Your task to perform on an android device: Go to notification settings Image 0: 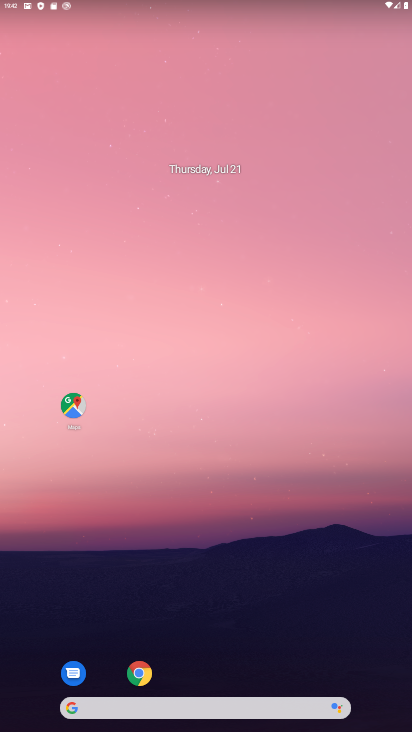
Step 0: drag from (357, 649) to (338, 222)
Your task to perform on an android device: Go to notification settings Image 1: 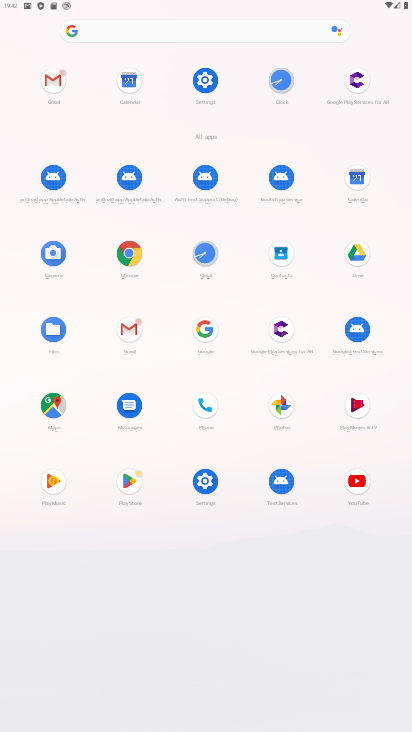
Step 1: click (217, 85)
Your task to perform on an android device: Go to notification settings Image 2: 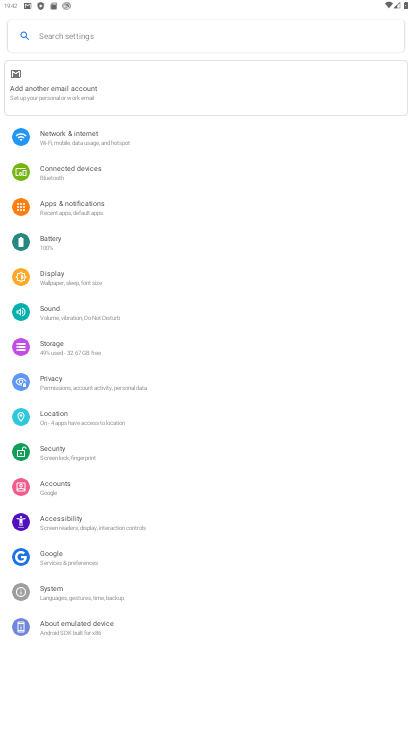
Step 2: click (55, 208)
Your task to perform on an android device: Go to notification settings Image 3: 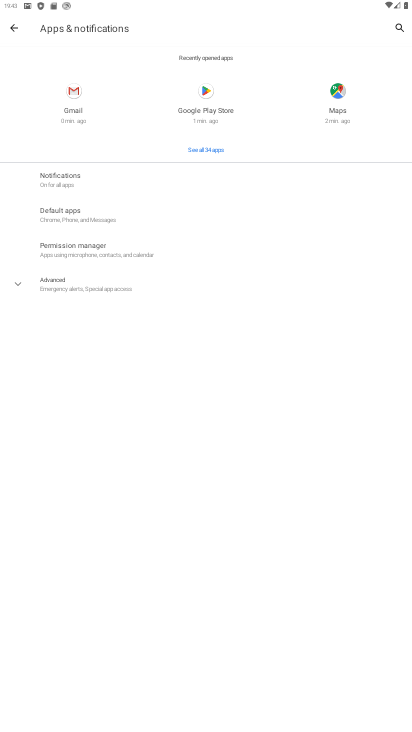
Step 3: click (64, 177)
Your task to perform on an android device: Go to notification settings Image 4: 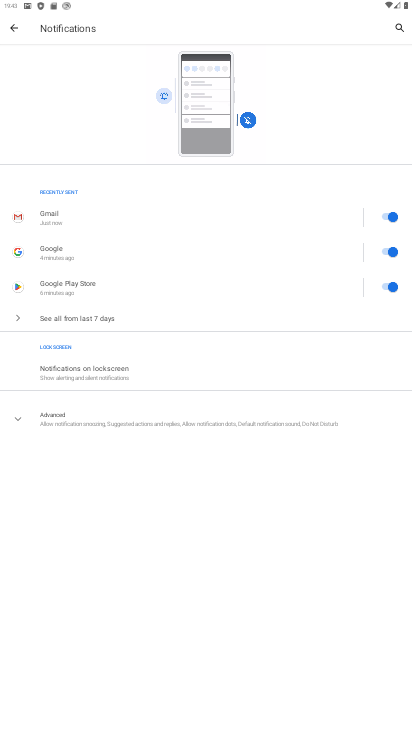
Step 4: task complete